Your task to perform on an android device: snooze an email in the gmail app Image 0: 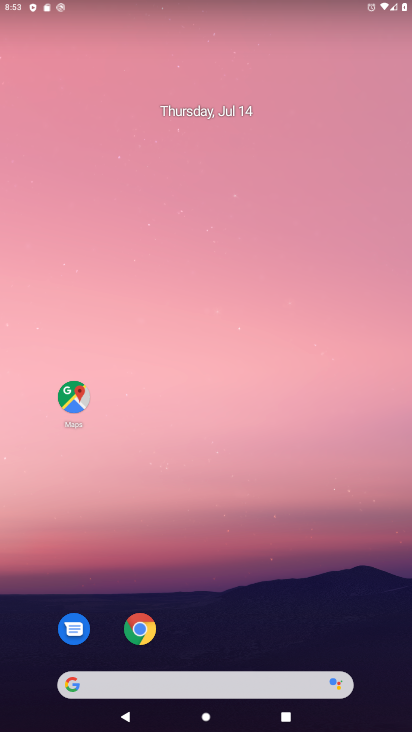
Step 0: drag from (294, 632) to (238, 4)
Your task to perform on an android device: snooze an email in the gmail app Image 1: 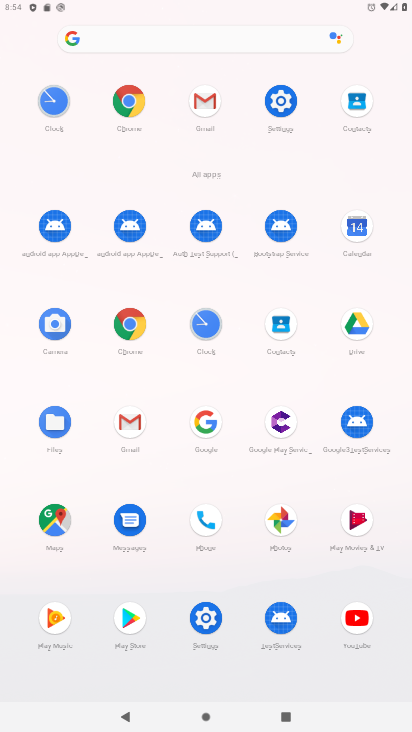
Step 1: click (203, 105)
Your task to perform on an android device: snooze an email in the gmail app Image 2: 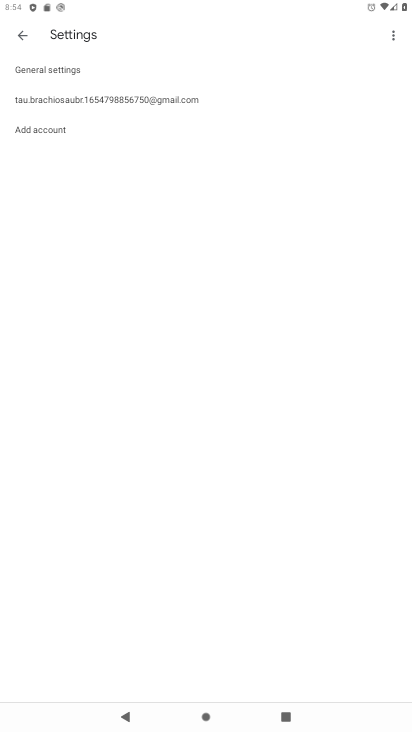
Step 2: click (22, 32)
Your task to perform on an android device: snooze an email in the gmail app Image 3: 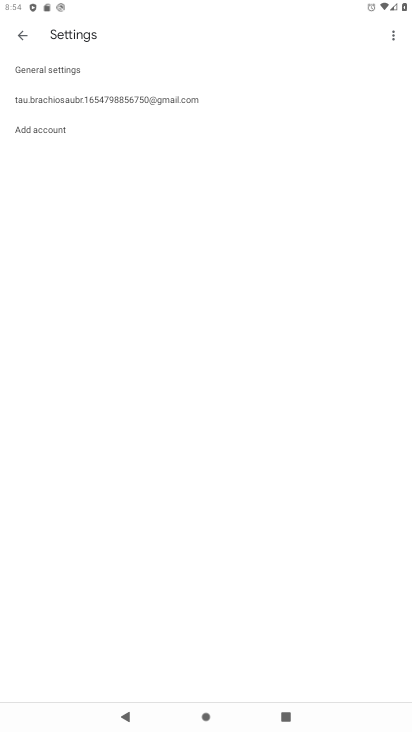
Step 3: click (22, 33)
Your task to perform on an android device: snooze an email in the gmail app Image 4: 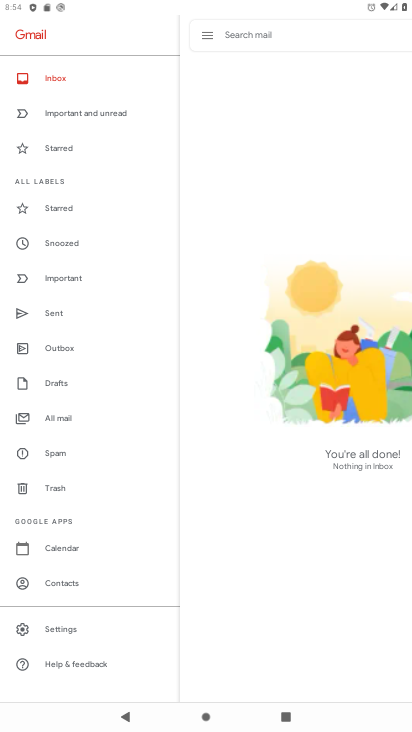
Step 4: click (68, 422)
Your task to perform on an android device: snooze an email in the gmail app Image 5: 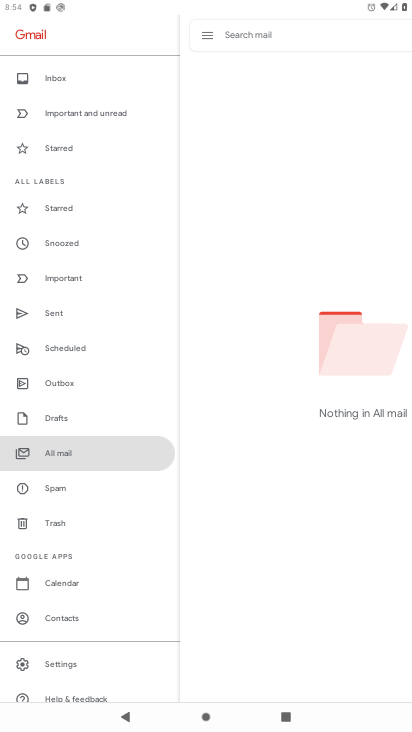
Step 5: task complete